Your task to perform on an android device: Check the weather Image 0: 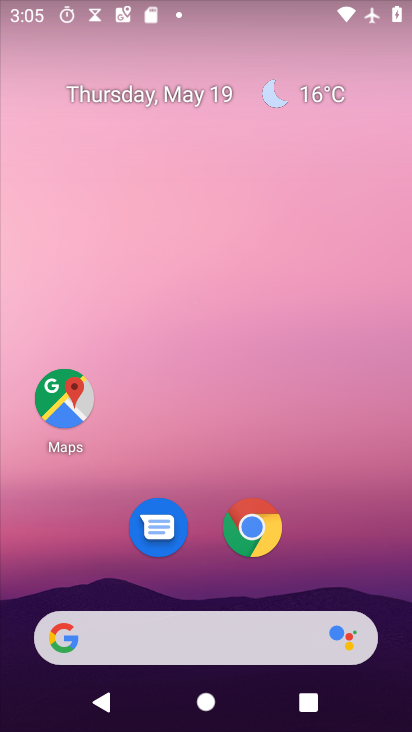
Step 0: drag from (307, 263) to (278, 163)
Your task to perform on an android device: Check the weather Image 1: 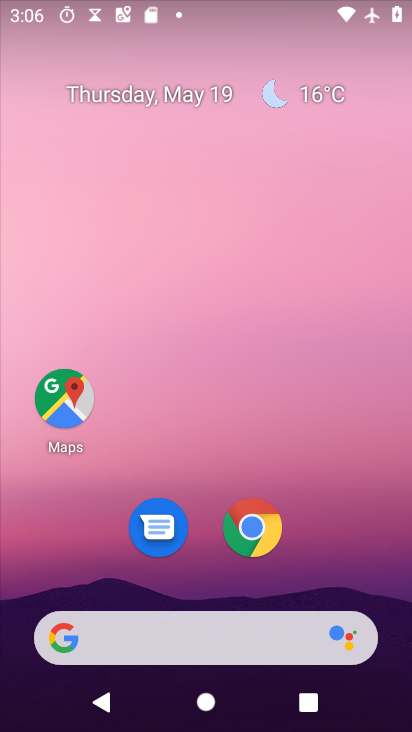
Step 1: drag from (337, 523) to (220, 18)
Your task to perform on an android device: Check the weather Image 2: 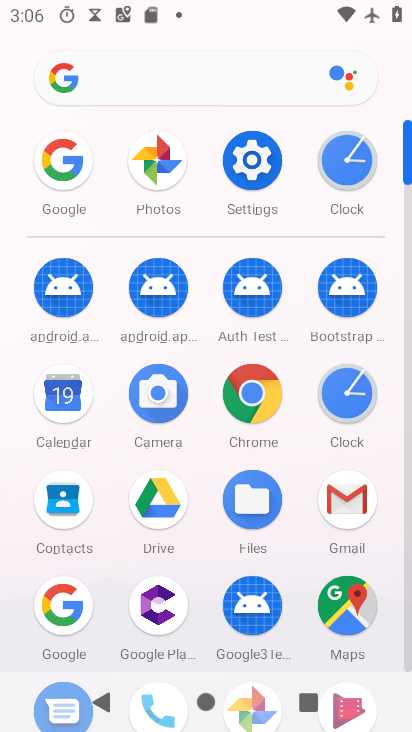
Step 2: click (80, 603)
Your task to perform on an android device: Check the weather Image 3: 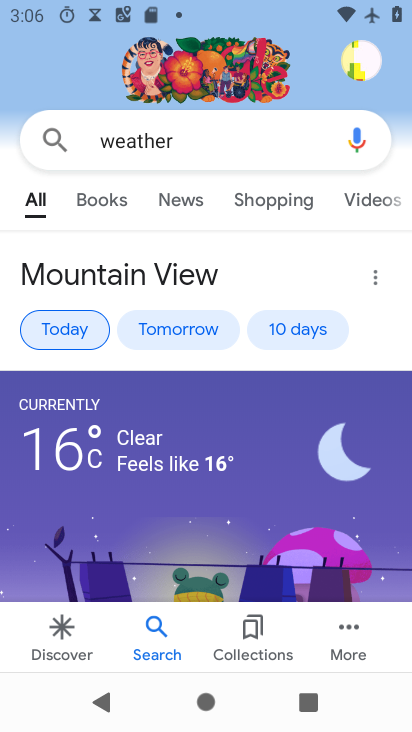
Step 3: task complete